Your task to perform on an android device: move a message to another label in the gmail app Image 0: 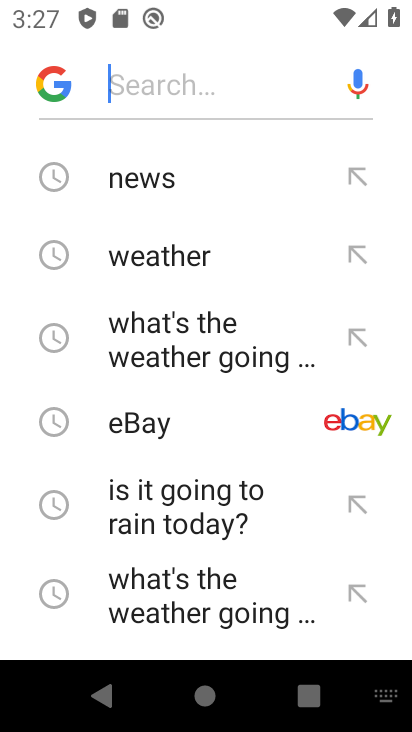
Step 0: press home button
Your task to perform on an android device: move a message to another label in the gmail app Image 1: 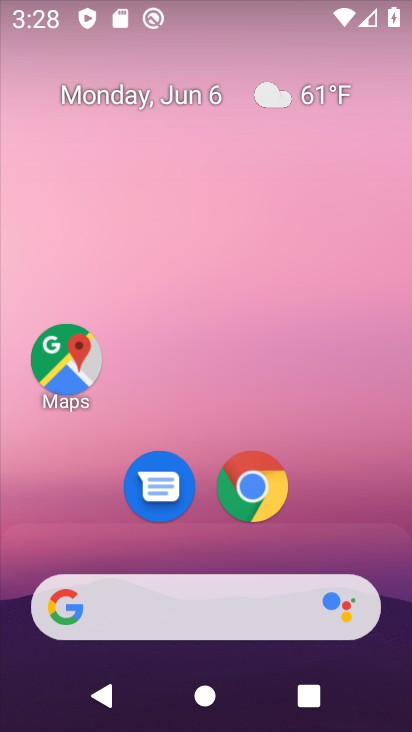
Step 1: drag from (341, 501) to (288, 153)
Your task to perform on an android device: move a message to another label in the gmail app Image 2: 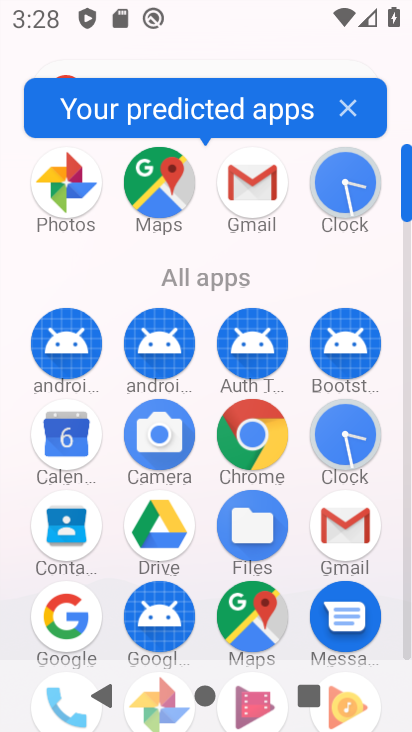
Step 2: click (246, 198)
Your task to perform on an android device: move a message to another label in the gmail app Image 3: 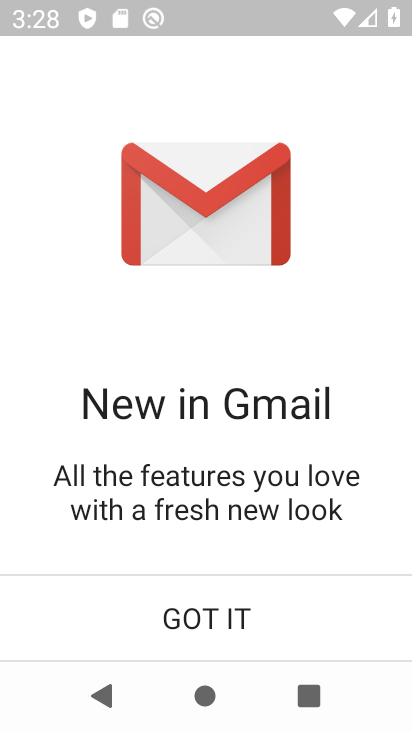
Step 3: click (172, 631)
Your task to perform on an android device: move a message to another label in the gmail app Image 4: 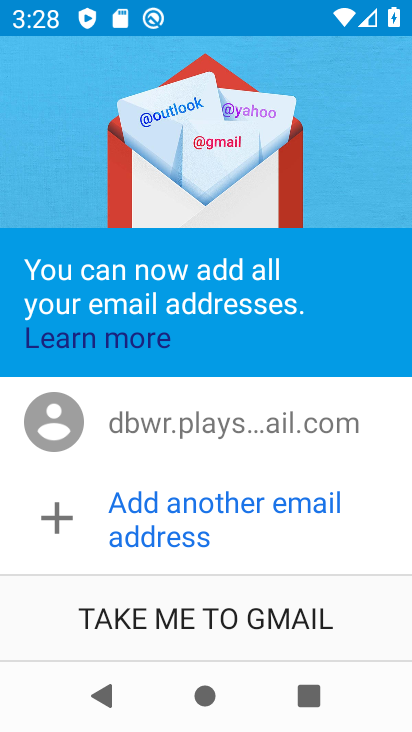
Step 4: click (172, 617)
Your task to perform on an android device: move a message to another label in the gmail app Image 5: 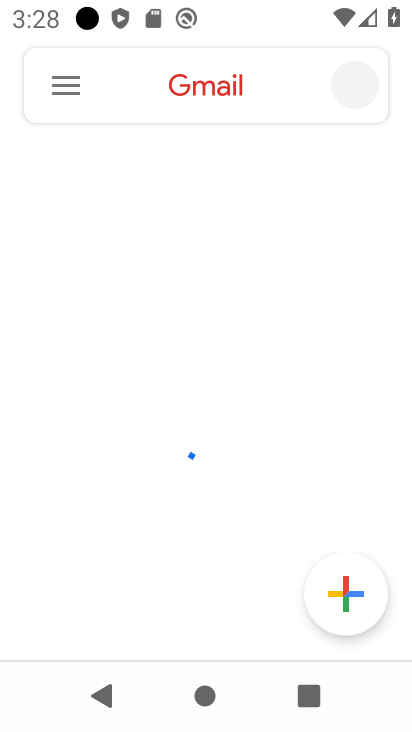
Step 5: click (74, 79)
Your task to perform on an android device: move a message to another label in the gmail app Image 6: 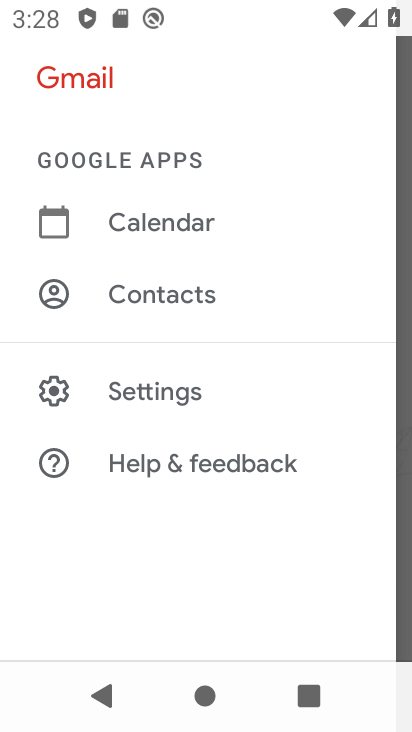
Step 6: click (409, 180)
Your task to perform on an android device: move a message to another label in the gmail app Image 7: 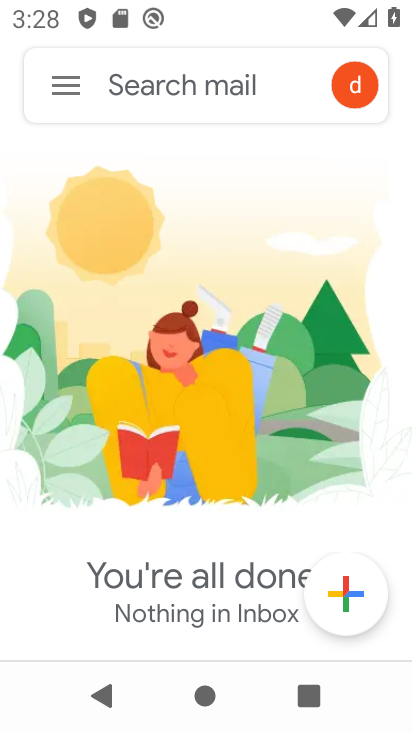
Step 7: click (56, 63)
Your task to perform on an android device: move a message to another label in the gmail app Image 8: 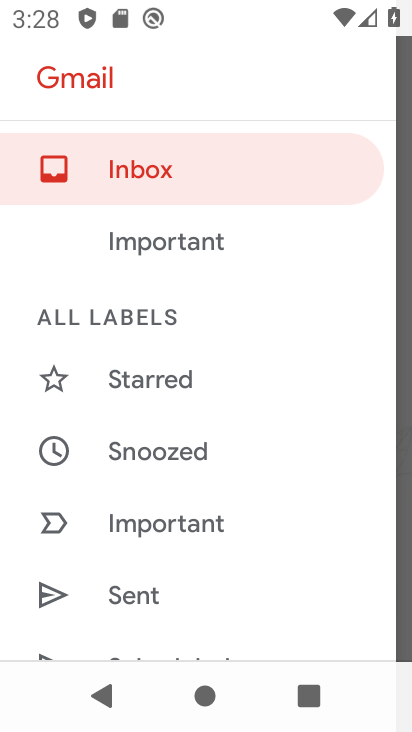
Step 8: drag from (241, 569) to (304, 164)
Your task to perform on an android device: move a message to another label in the gmail app Image 9: 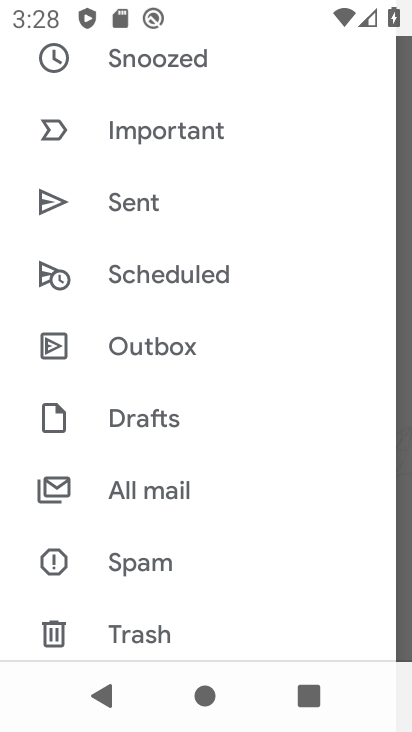
Step 9: drag from (210, 579) to (255, 292)
Your task to perform on an android device: move a message to another label in the gmail app Image 10: 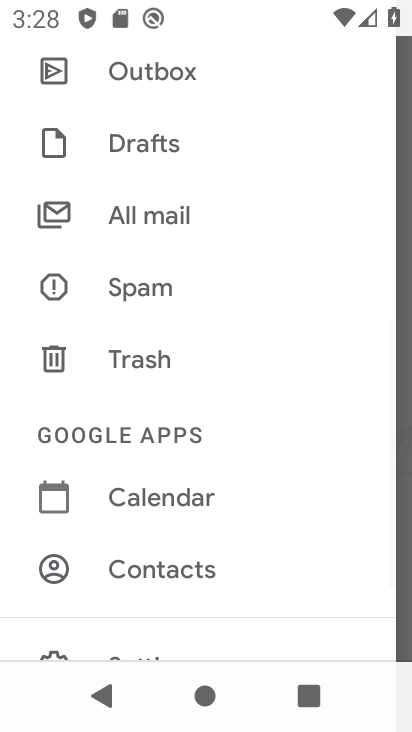
Step 10: click (175, 227)
Your task to perform on an android device: move a message to another label in the gmail app Image 11: 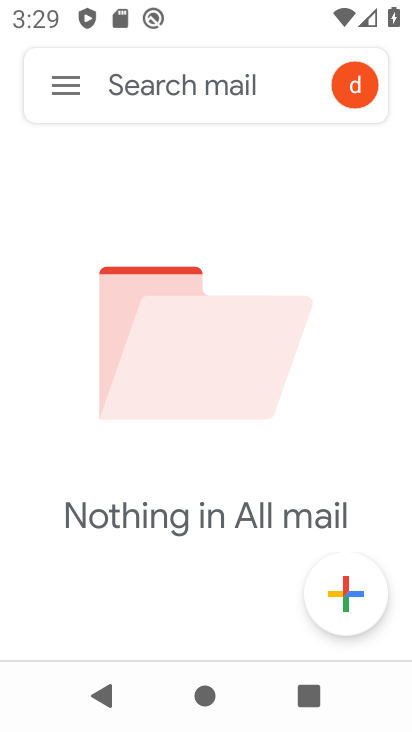
Step 11: task complete